Your task to perform on an android device: Open internet settings Image 0: 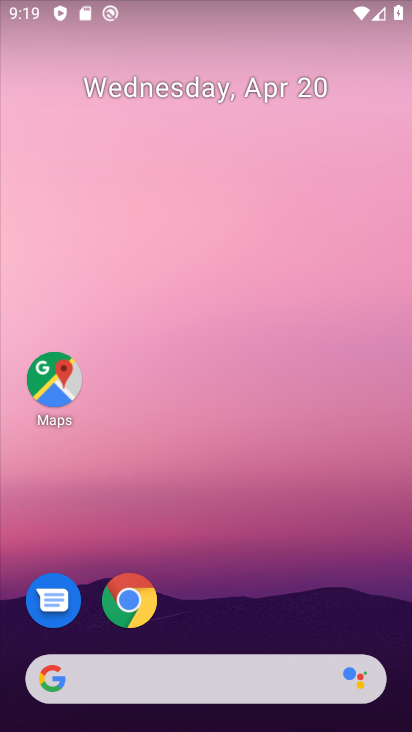
Step 0: drag from (210, 632) to (157, 104)
Your task to perform on an android device: Open internet settings Image 1: 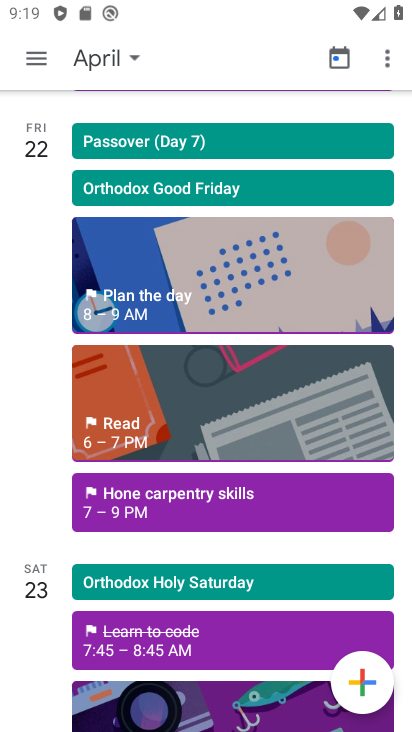
Step 1: press home button
Your task to perform on an android device: Open internet settings Image 2: 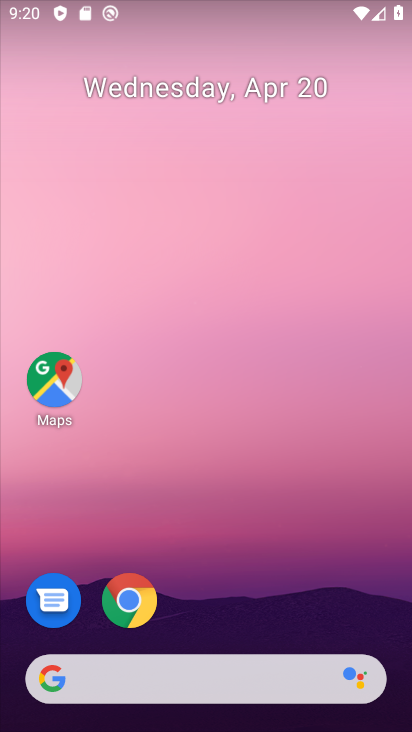
Step 2: drag from (228, 639) to (166, 51)
Your task to perform on an android device: Open internet settings Image 3: 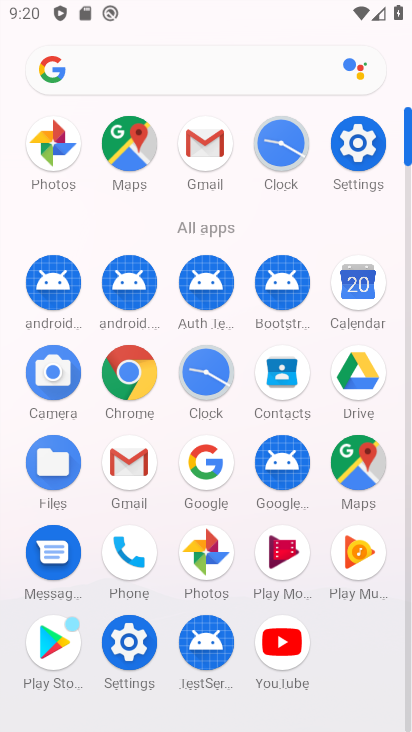
Step 3: click (104, 643)
Your task to perform on an android device: Open internet settings Image 4: 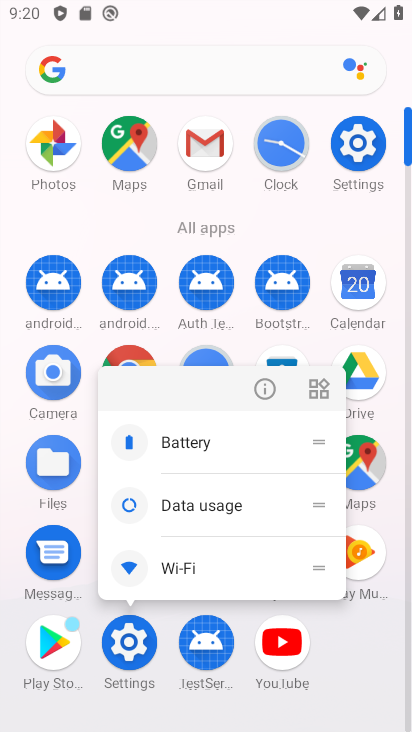
Step 4: click (131, 640)
Your task to perform on an android device: Open internet settings Image 5: 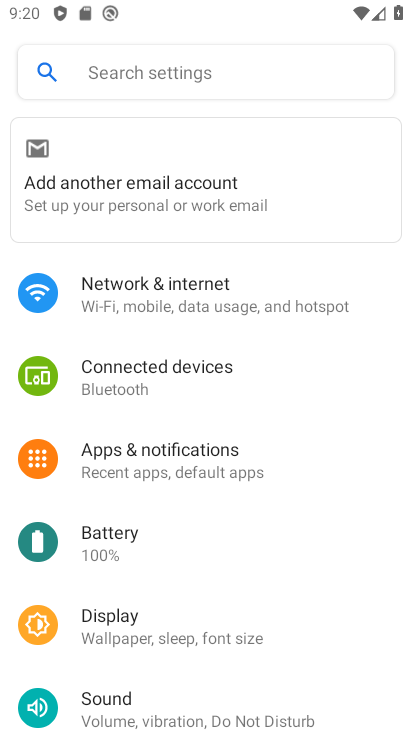
Step 5: click (149, 273)
Your task to perform on an android device: Open internet settings Image 6: 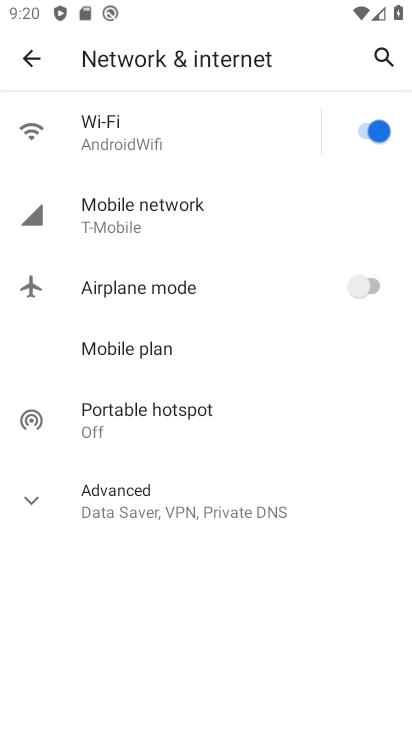
Step 6: click (123, 218)
Your task to perform on an android device: Open internet settings Image 7: 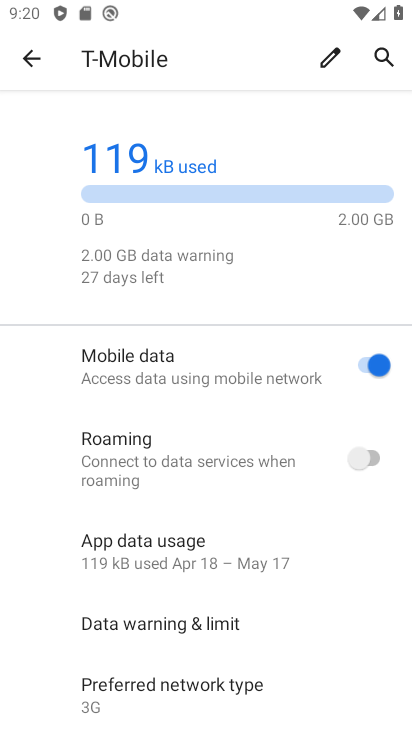
Step 7: task complete